Your task to perform on an android device: uninstall "Firefox Browser" Image 0: 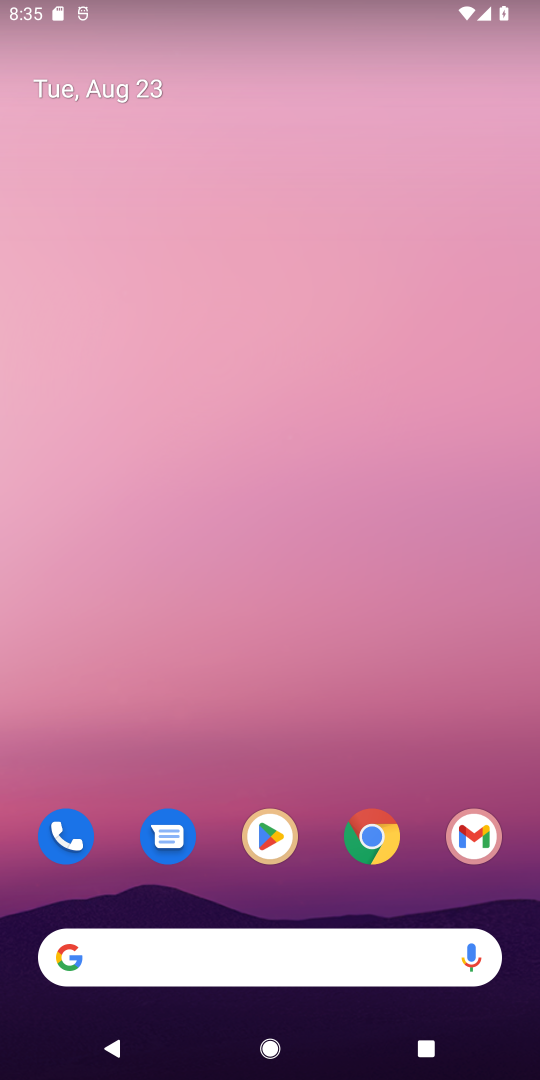
Step 0: press home button
Your task to perform on an android device: uninstall "Firefox Browser" Image 1: 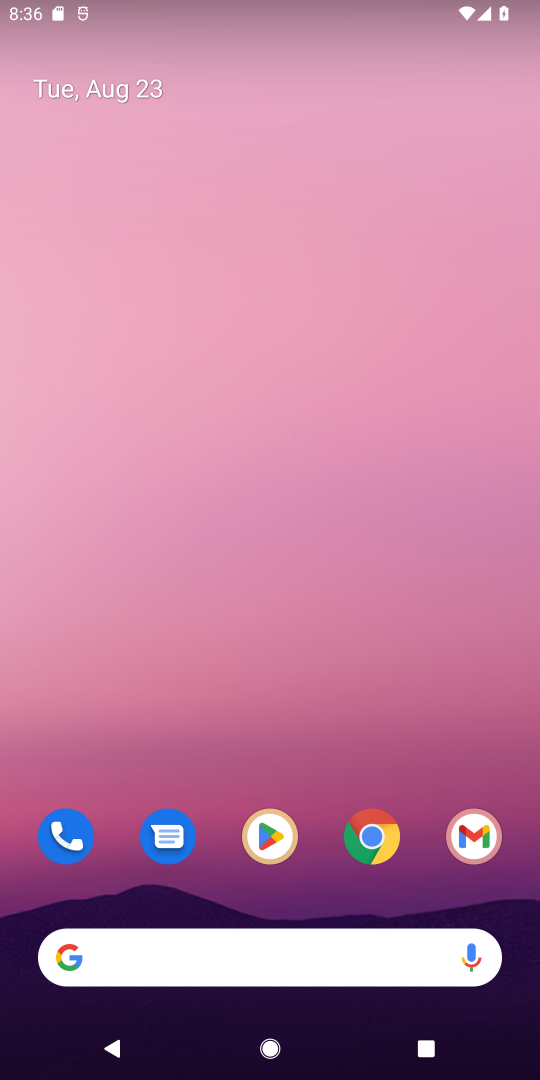
Step 1: click (280, 825)
Your task to perform on an android device: uninstall "Firefox Browser" Image 2: 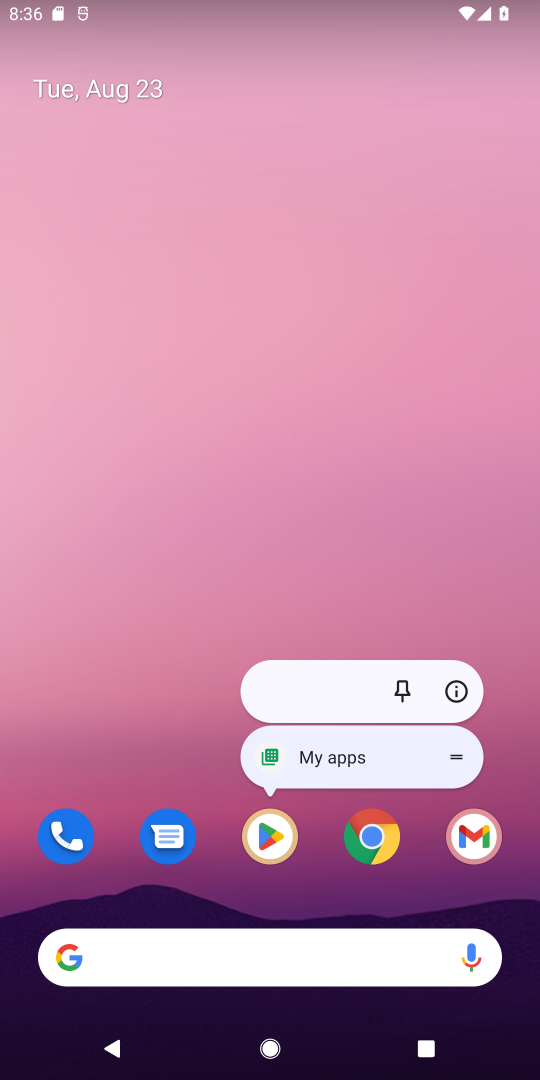
Step 2: click (282, 834)
Your task to perform on an android device: uninstall "Firefox Browser" Image 3: 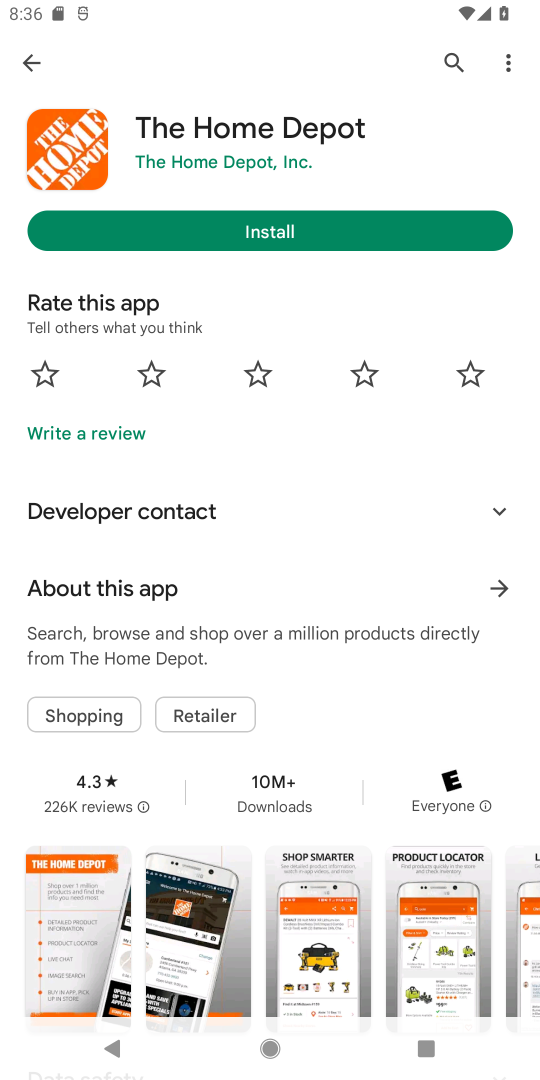
Step 3: click (450, 56)
Your task to perform on an android device: uninstall "Firefox Browser" Image 4: 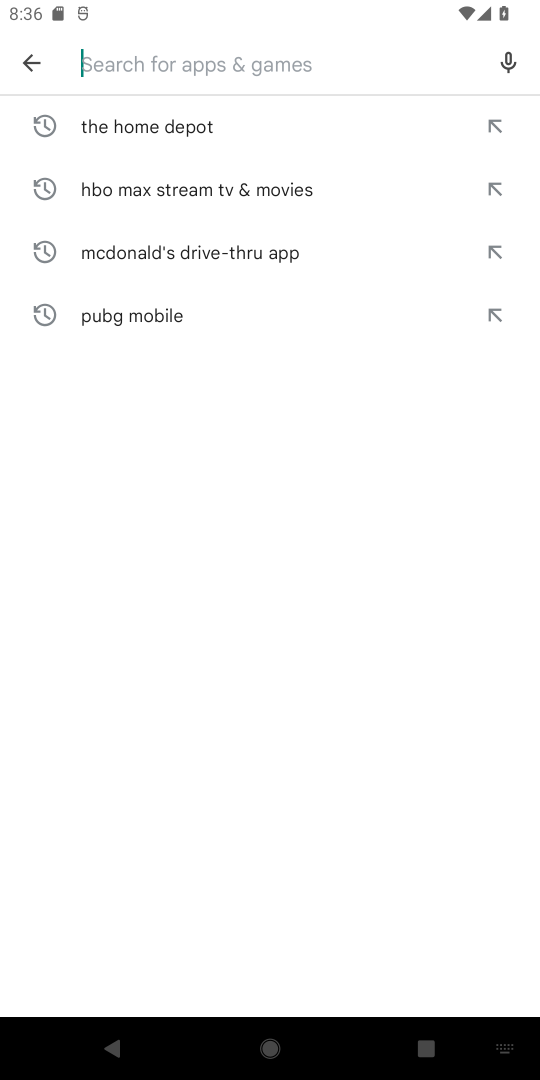
Step 4: type "Firefox Browser"
Your task to perform on an android device: uninstall "Firefox Browser" Image 5: 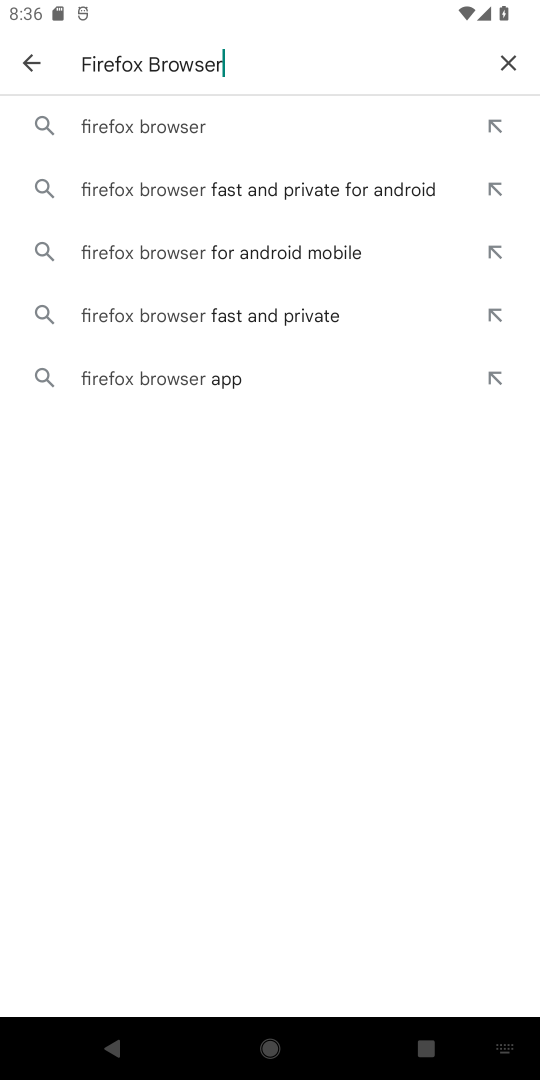
Step 5: click (151, 111)
Your task to perform on an android device: uninstall "Firefox Browser" Image 6: 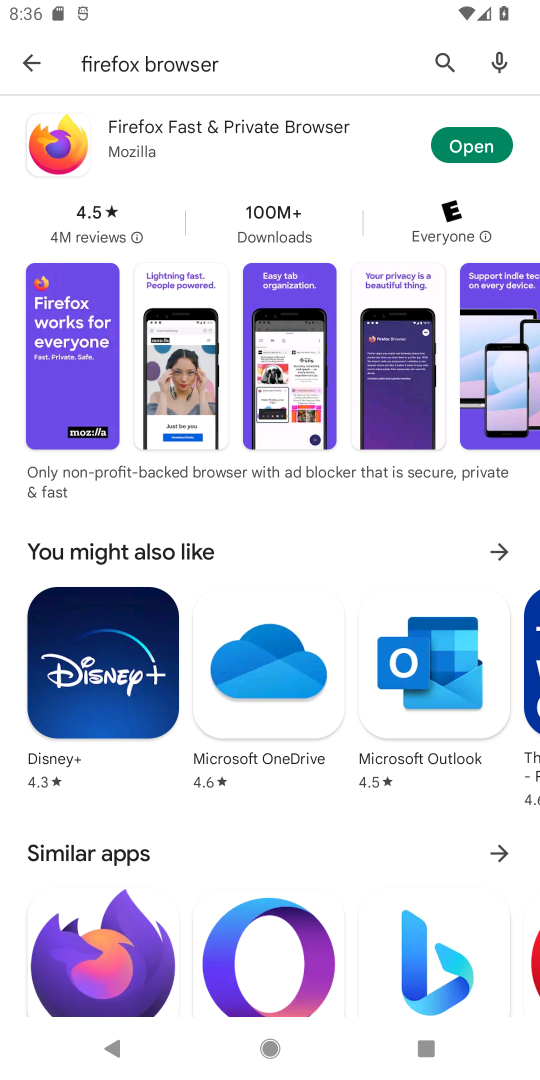
Step 6: click (135, 120)
Your task to perform on an android device: uninstall "Firefox Browser" Image 7: 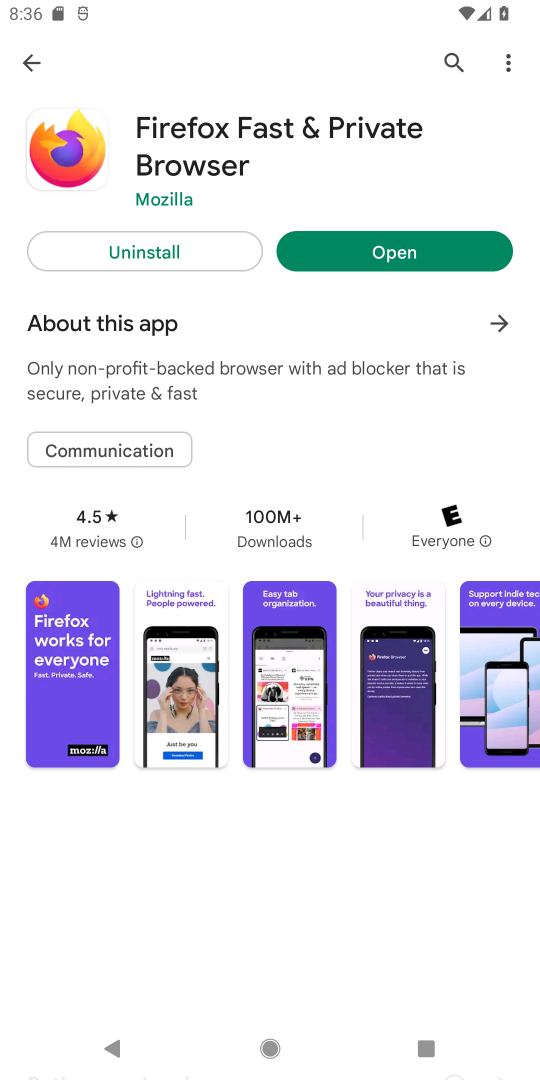
Step 7: click (163, 248)
Your task to perform on an android device: uninstall "Firefox Browser" Image 8: 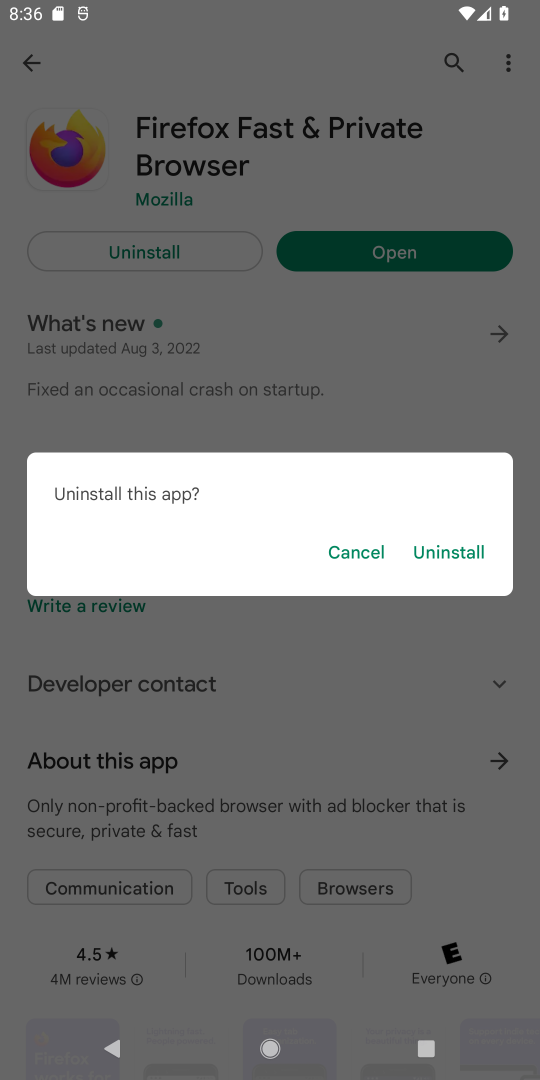
Step 8: click (445, 555)
Your task to perform on an android device: uninstall "Firefox Browser" Image 9: 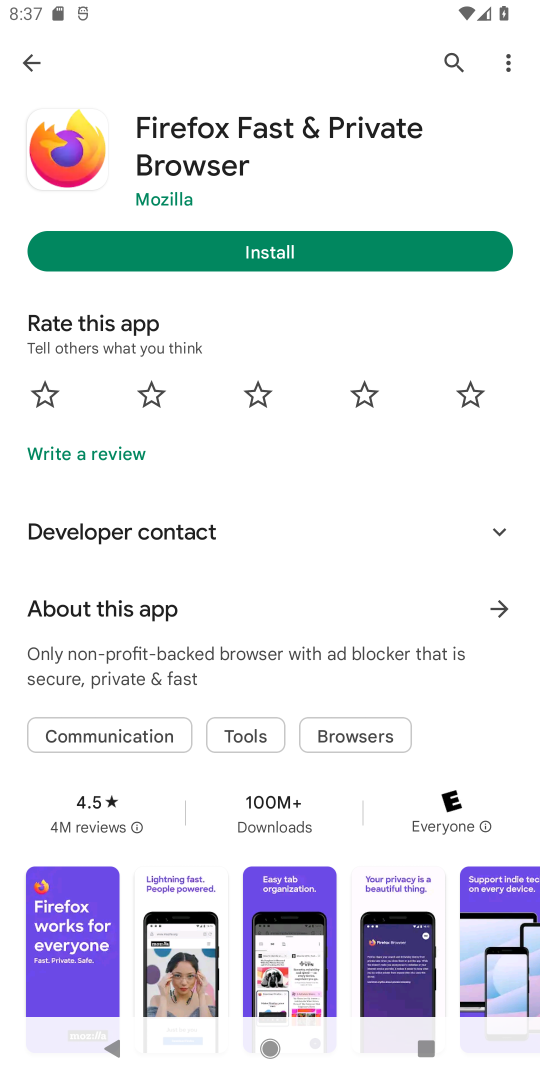
Step 9: task complete